Your task to perform on an android device: make emails show in primary in the gmail app Image 0: 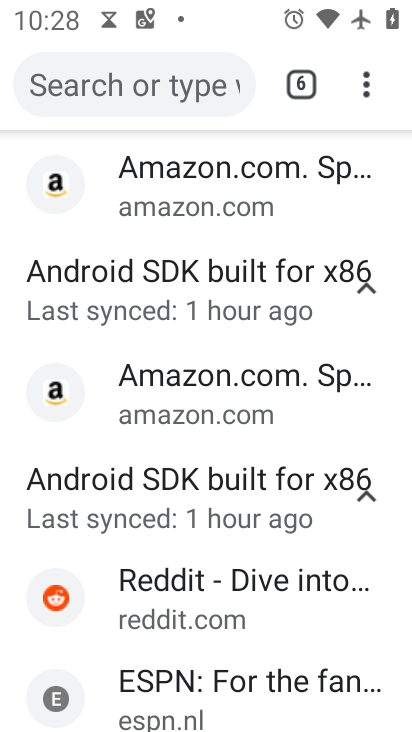
Step 0: press home button
Your task to perform on an android device: make emails show in primary in the gmail app Image 1: 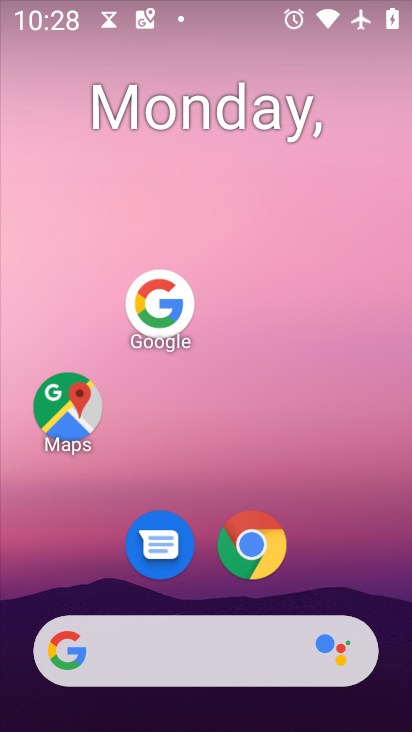
Step 1: drag from (158, 654) to (300, 160)
Your task to perform on an android device: make emails show in primary in the gmail app Image 2: 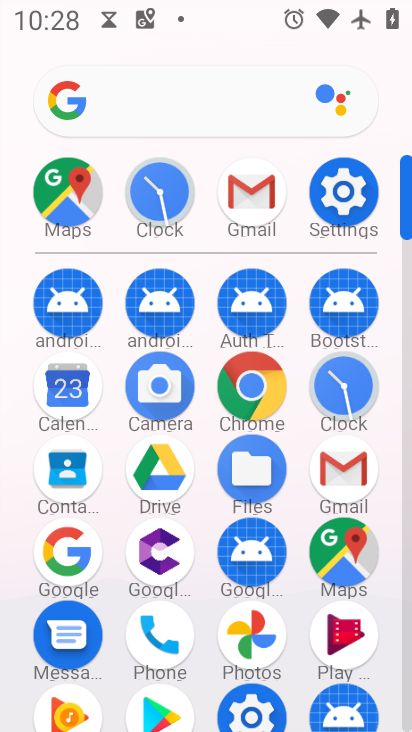
Step 2: click (255, 200)
Your task to perform on an android device: make emails show in primary in the gmail app Image 3: 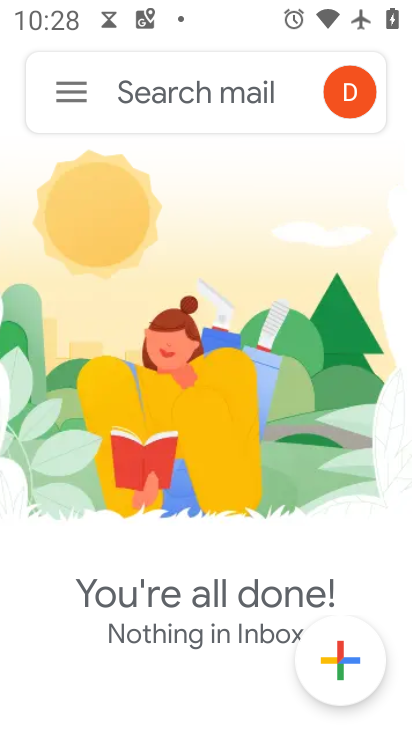
Step 3: click (75, 96)
Your task to perform on an android device: make emails show in primary in the gmail app Image 4: 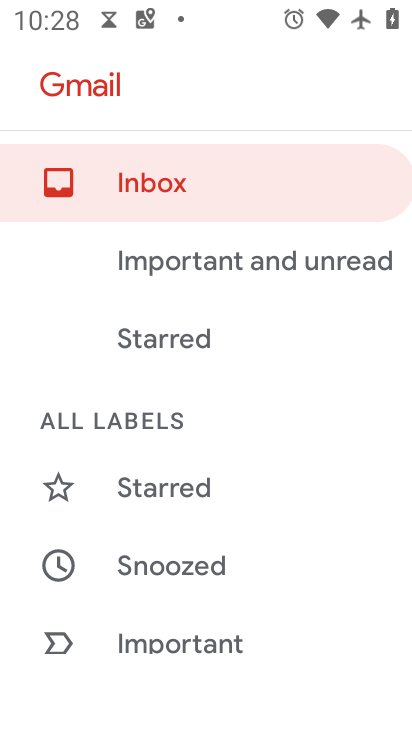
Step 4: drag from (244, 608) to (405, 117)
Your task to perform on an android device: make emails show in primary in the gmail app Image 5: 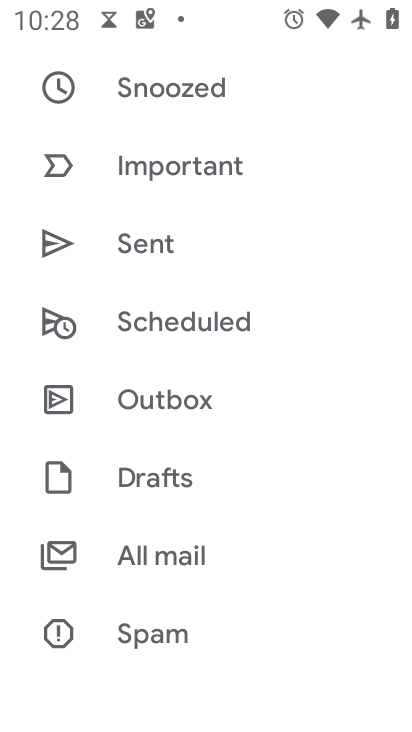
Step 5: drag from (235, 625) to (369, 195)
Your task to perform on an android device: make emails show in primary in the gmail app Image 6: 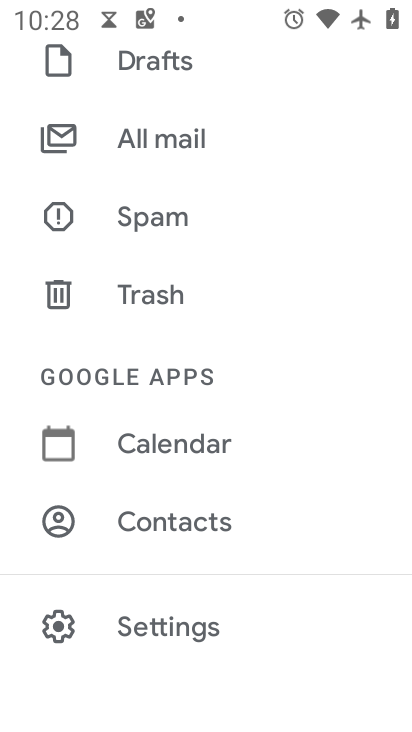
Step 6: click (203, 634)
Your task to perform on an android device: make emails show in primary in the gmail app Image 7: 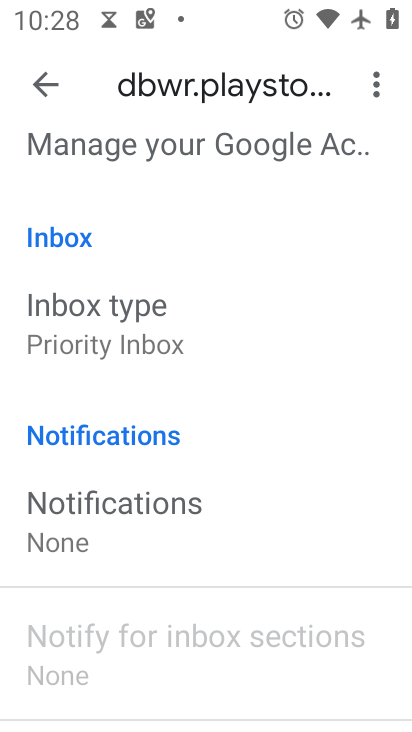
Step 7: task complete